Your task to perform on an android device: refresh tabs in the chrome app Image 0: 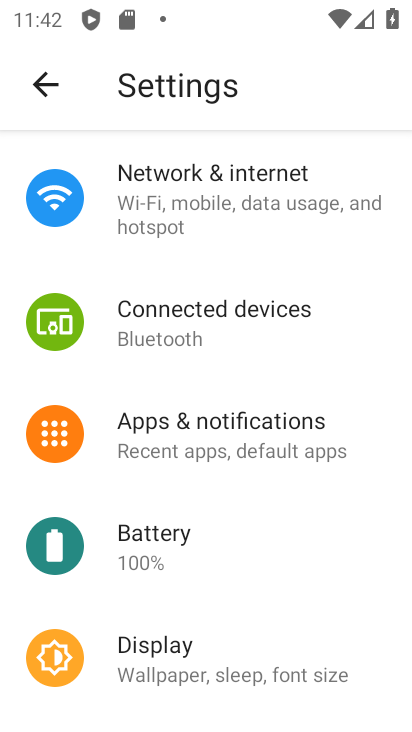
Step 0: press home button
Your task to perform on an android device: refresh tabs in the chrome app Image 1: 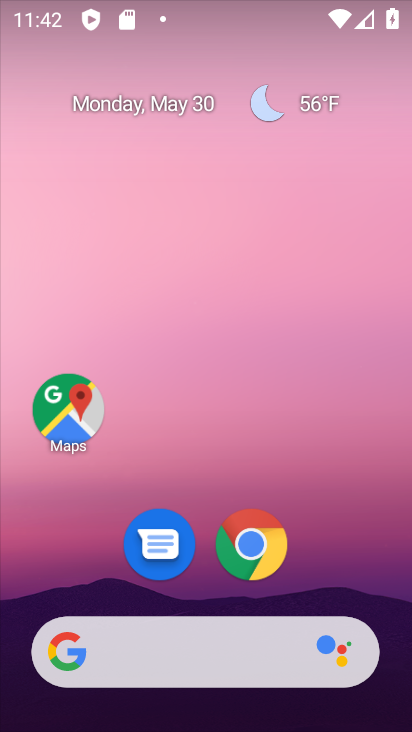
Step 1: click (251, 538)
Your task to perform on an android device: refresh tabs in the chrome app Image 2: 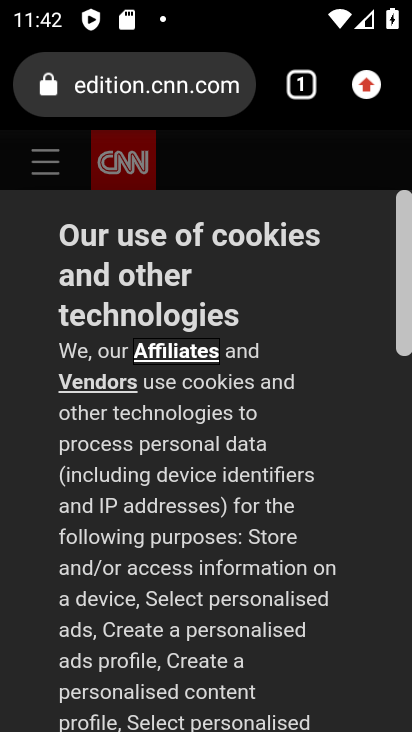
Step 2: drag from (324, 168) to (333, 593)
Your task to perform on an android device: refresh tabs in the chrome app Image 3: 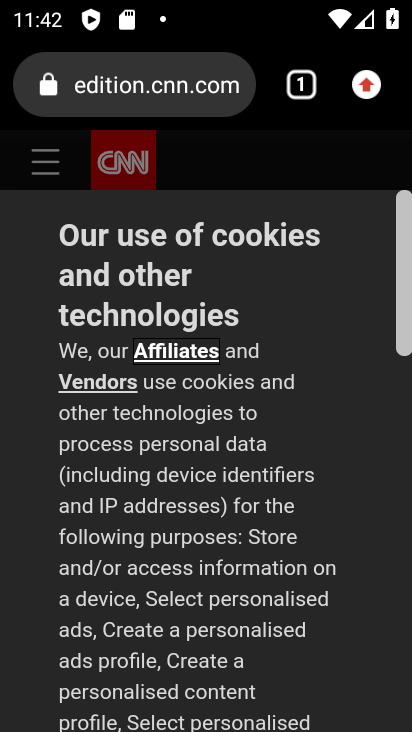
Step 3: click (363, 75)
Your task to perform on an android device: refresh tabs in the chrome app Image 4: 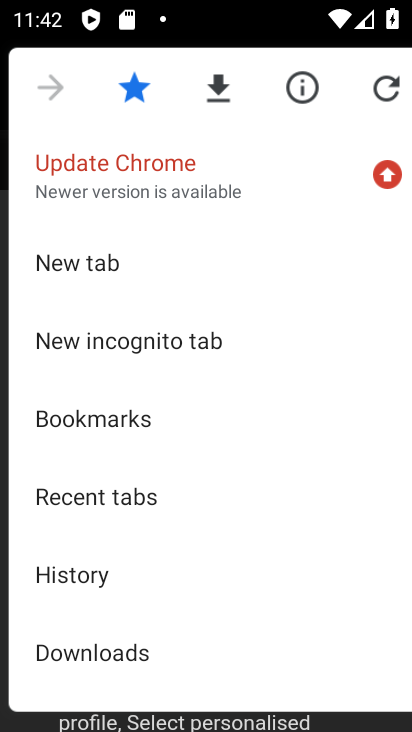
Step 4: click (377, 93)
Your task to perform on an android device: refresh tabs in the chrome app Image 5: 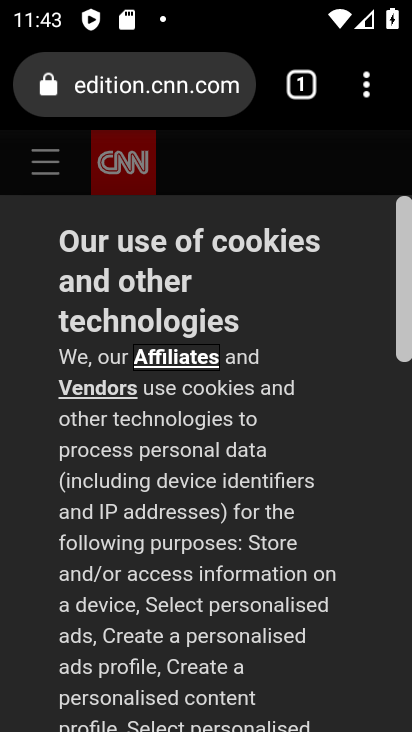
Step 5: task complete